Your task to perform on an android device: Is it going to rain tomorrow? Image 0: 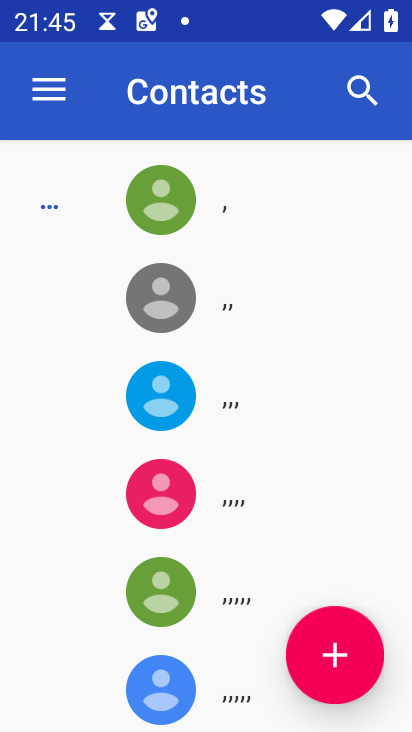
Step 0: press home button
Your task to perform on an android device: Is it going to rain tomorrow? Image 1: 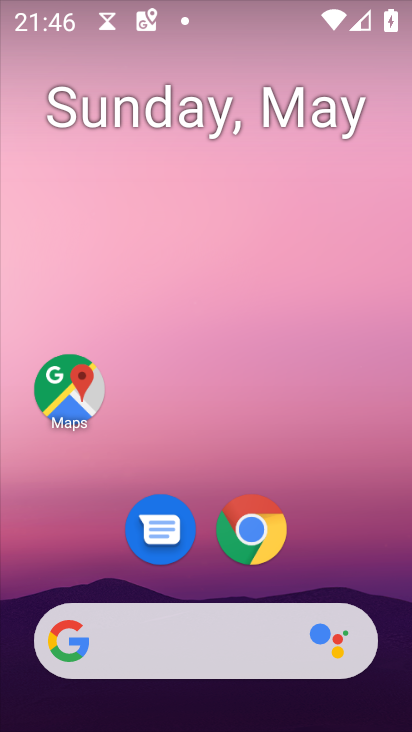
Step 1: click (160, 639)
Your task to perform on an android device: Is it going to rain tomorrow? Image 2: 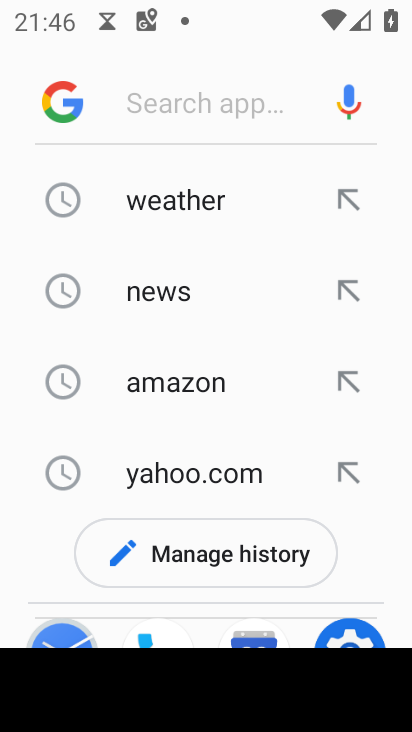
Step 2: type "is  it going to rain tomorrow"
Your task to perform on an android device: Is it going to rain tomorrow? Image 3: 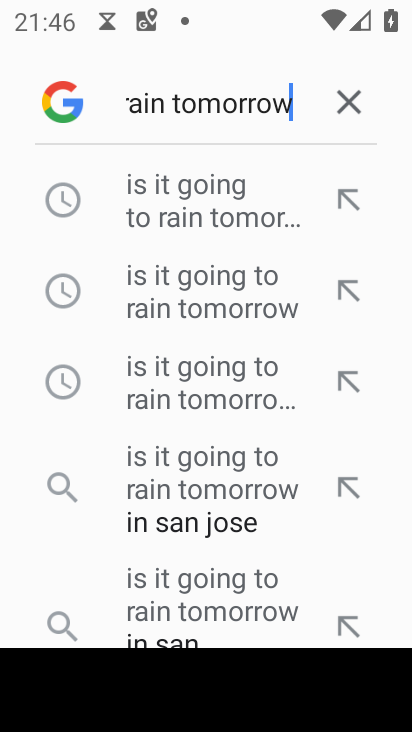
Step 3: click (190, 187)
Your task to perform on an android device: Is it going to rain tomorrow? Image 4: 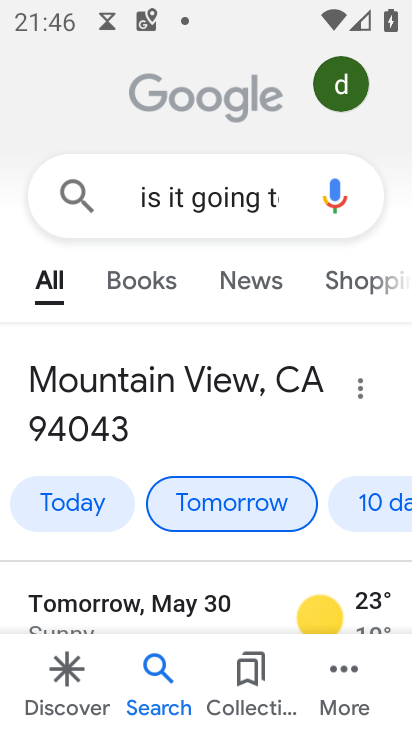
Step 4: task complete